Your task to perform on an android device: choose inbox layout in the gmail app Image 0: 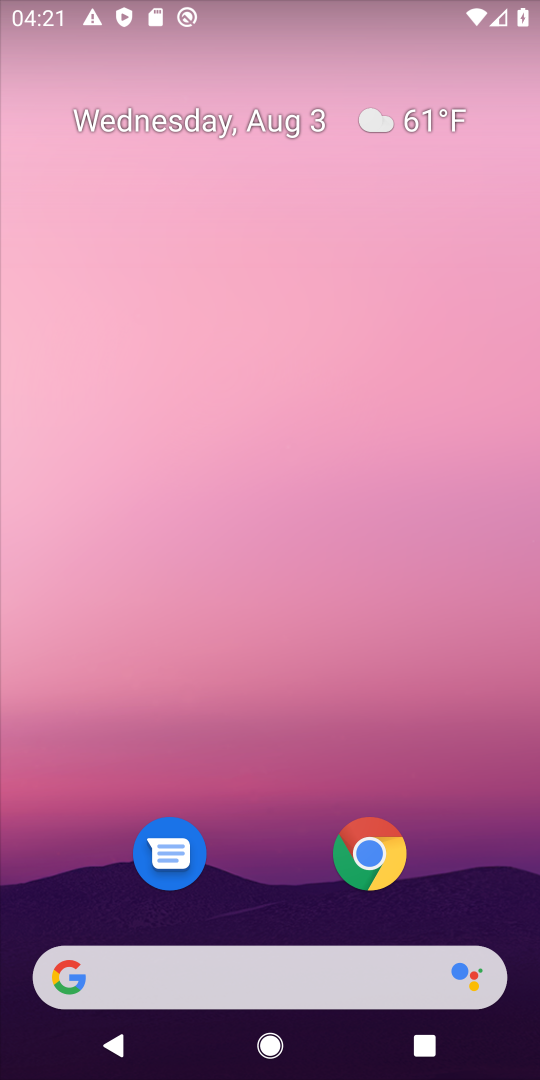
Step 0: drag from (257, 891) to (268, 129)
Your task to perform on an android device: choose inbox layout in the gmail app Image 1: 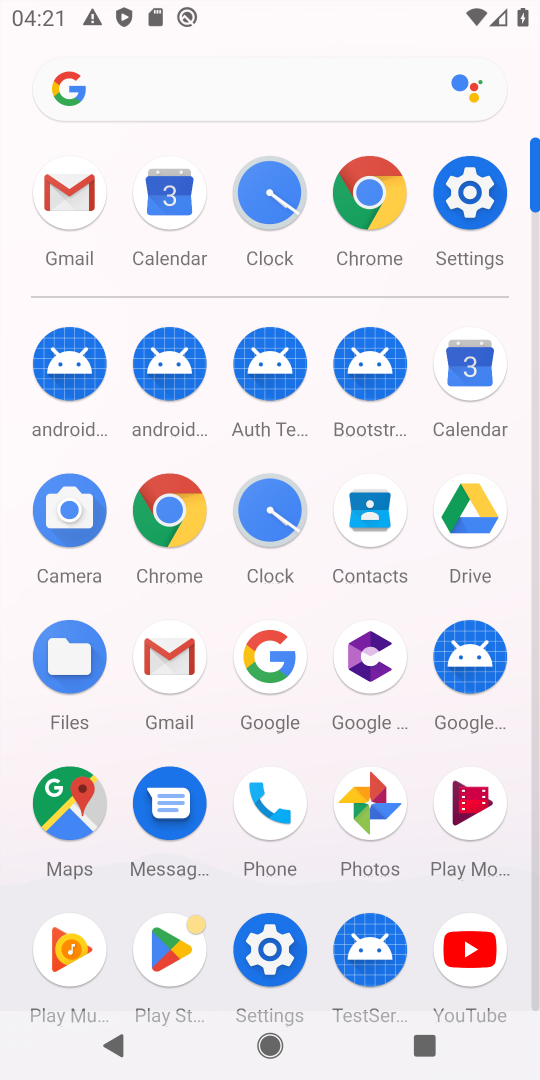
Step 1: click (173, 658)
Your task to perform on an android device: choose inbox layout in the gmail app Image 2: 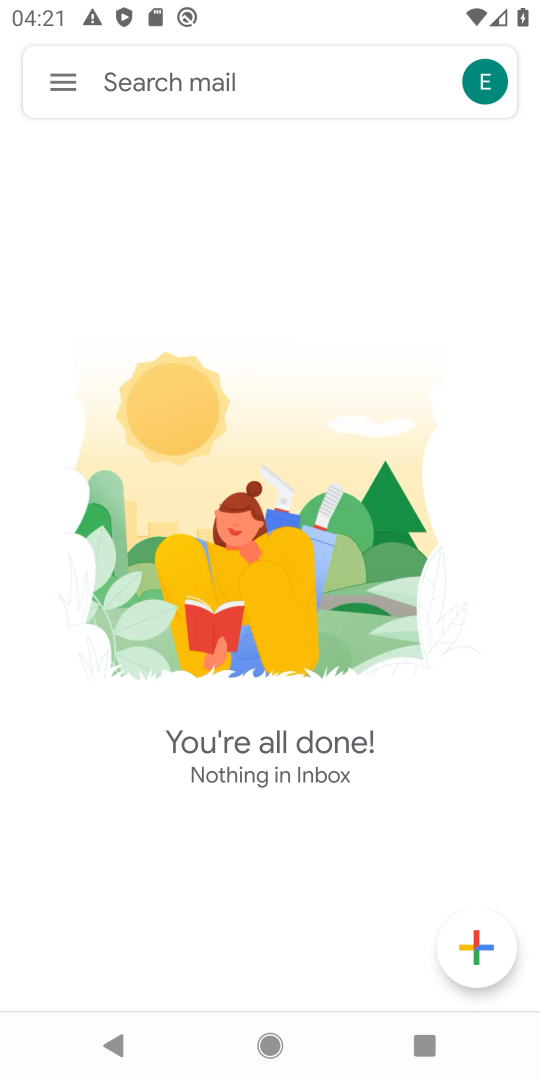
Step 2: click (64, 82)
Your task to perform on an android device: choose inbox layout in the gmail app Image 3: 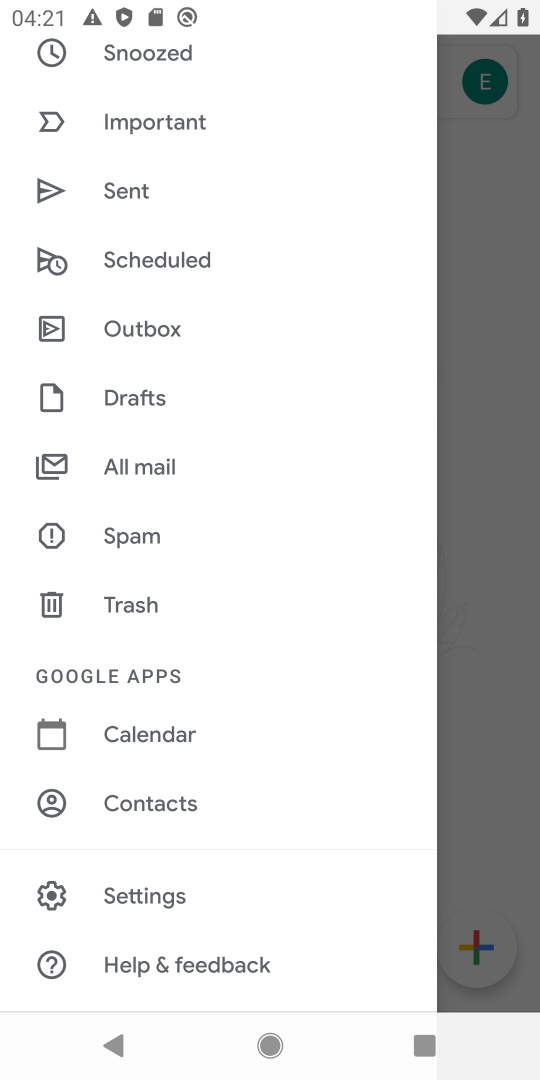
Step 3: click (155, 890)
Your task to perform on an android device: choose inbox layout in the gmail app Image 4: 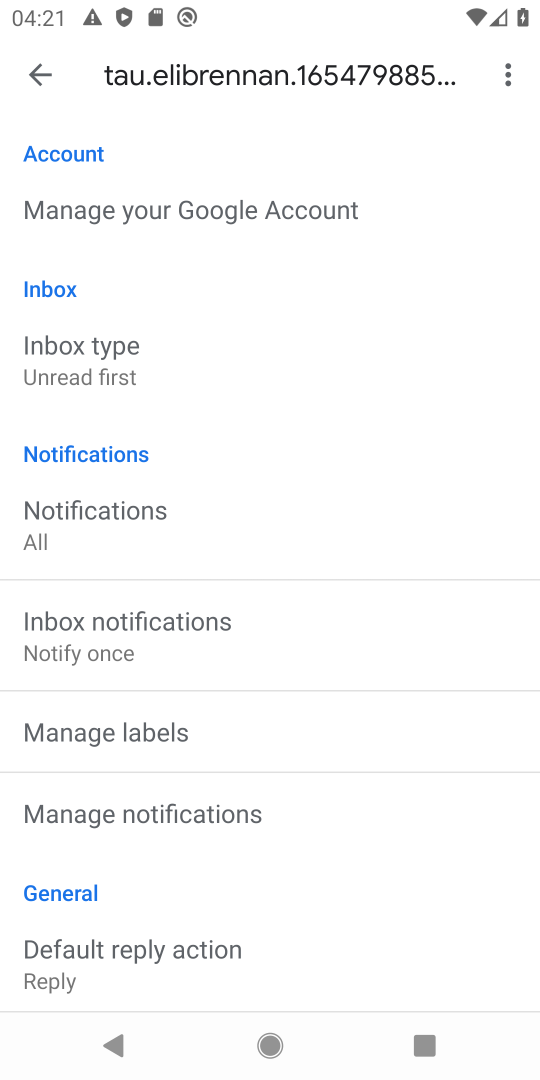
Step 4: drag from (166, 346) to (168, 832)
Your task to perform on an android device: choose inbox layout in the gmail app Image 5: 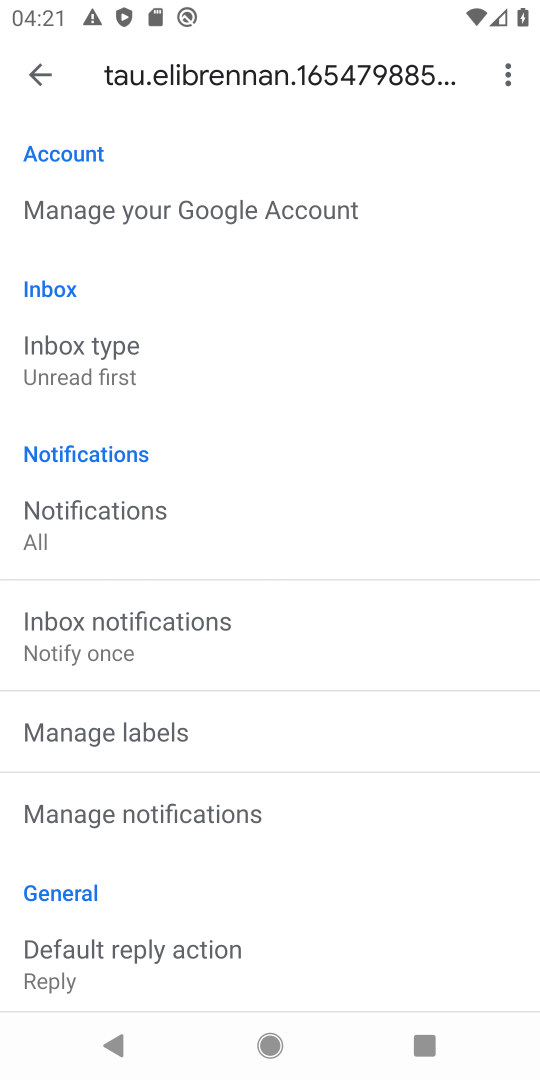
Step 5: click (77, 348)
Your task to perform on an android device: choose inbox layout in the gmail app Image 6: 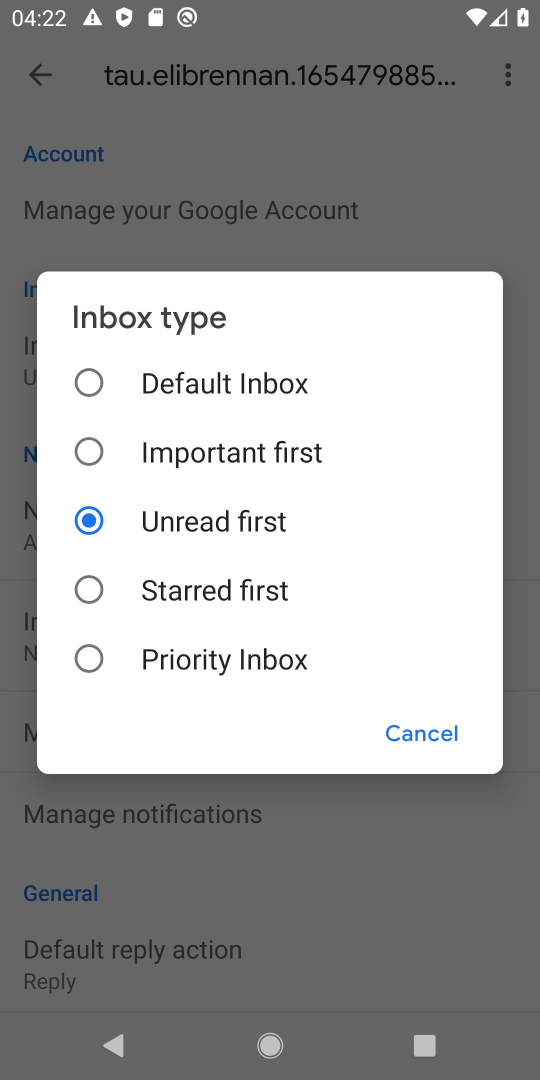
Step 6: click (92, 386)
Your task to perform on an android device: choose inbox layout in the gmail app Image 7: 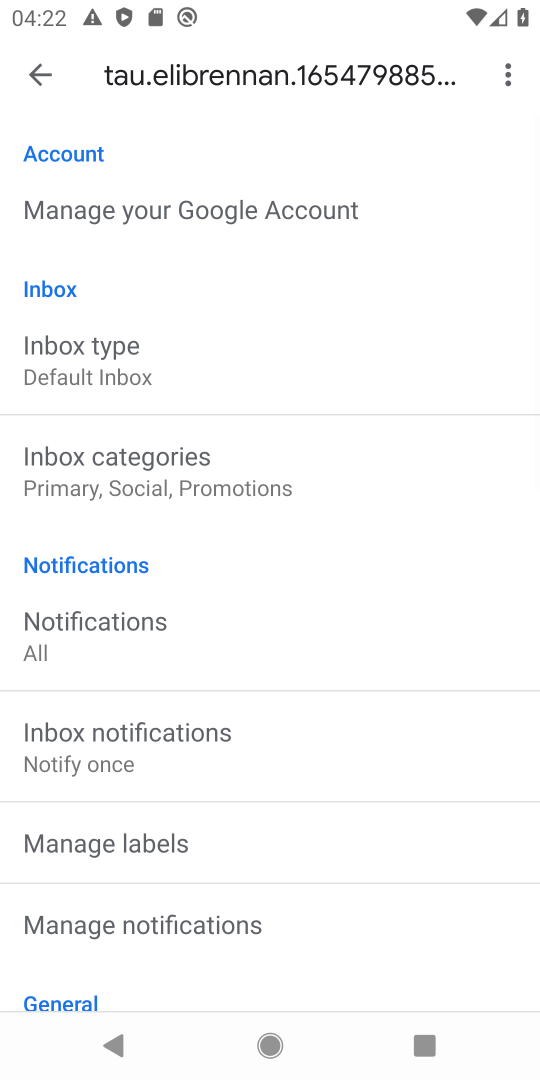
Step 7: task complete